Your task to perform on an android device: toggle notifications settings in the gmail app Image 0: 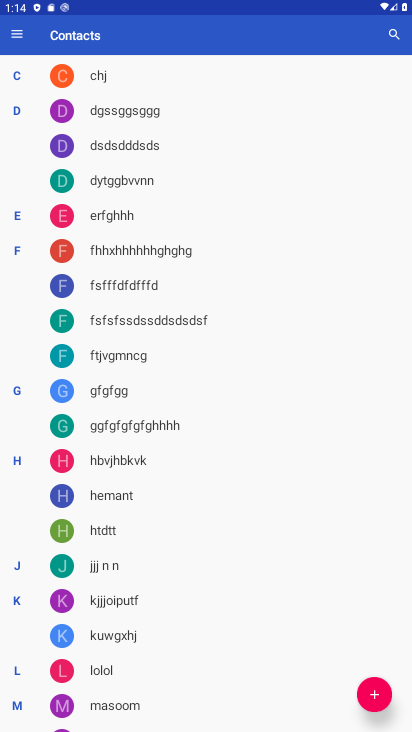
Step 0: task complete